Your task to perform on an android device: Do I have any events tomorrow? Image 0: 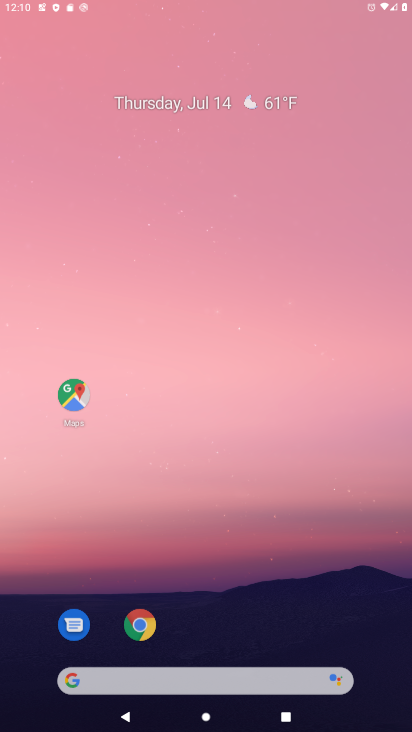
Step 0: click (141, 632)
Your task to perform on an android device: Do I have any events tomorrow? Image 1: 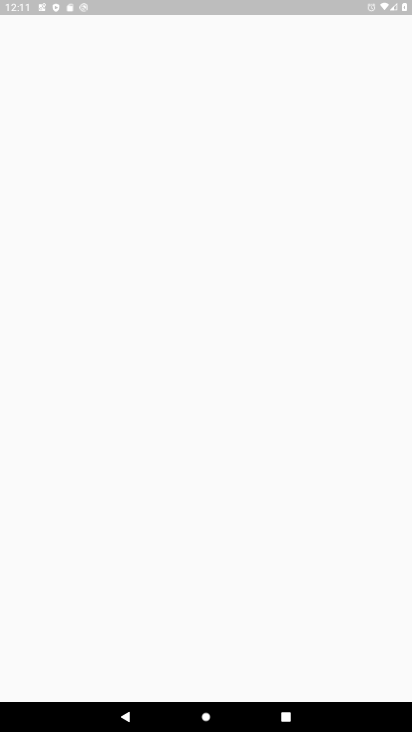
Step 1: press home button
Your task to perform on an android device: Do I have any events tomorrow? Image 2: 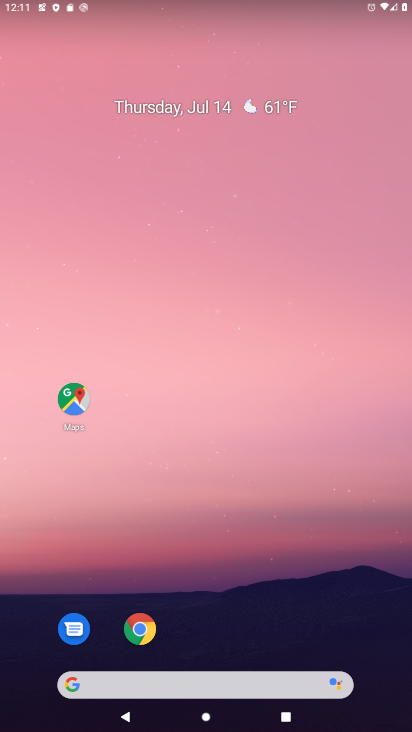
Step 2: drag from (245, 566) to (140, 78)
Your task to perform on an android device: Do I have any events tomorrow? Image 3: 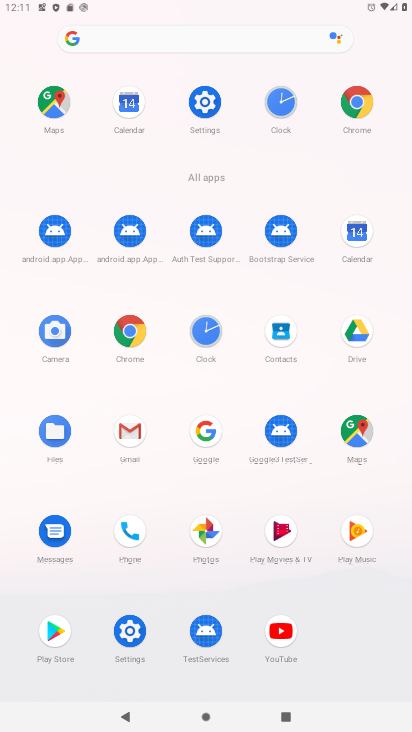
Step 3: click (360, 236)
Your task to perform on an android device: Do I have any events tomorrow? Image 4: 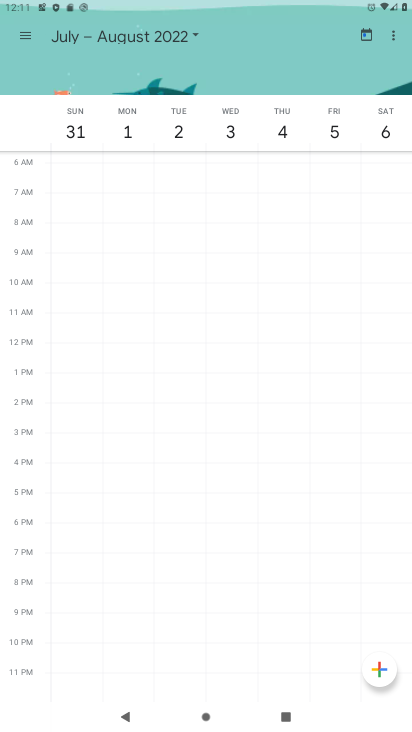
Step 4: click (25, 31)
Your task to perform on an android device: Do I have any events tomorrow? Image 5: 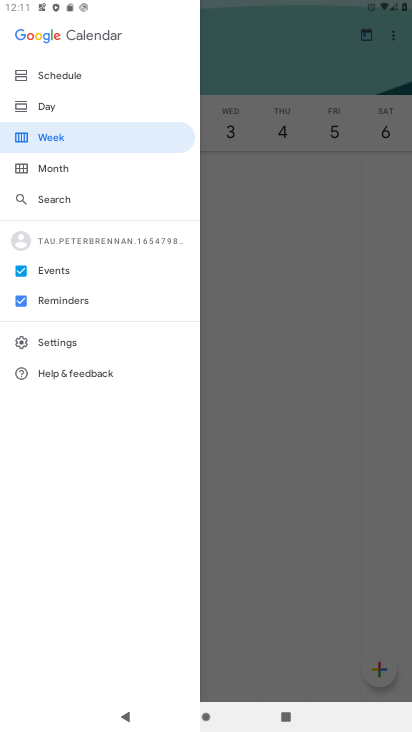
Step 5: click (45, 96)
Your task to perform on an android device: Do I have any events tomorrow? Image 6: 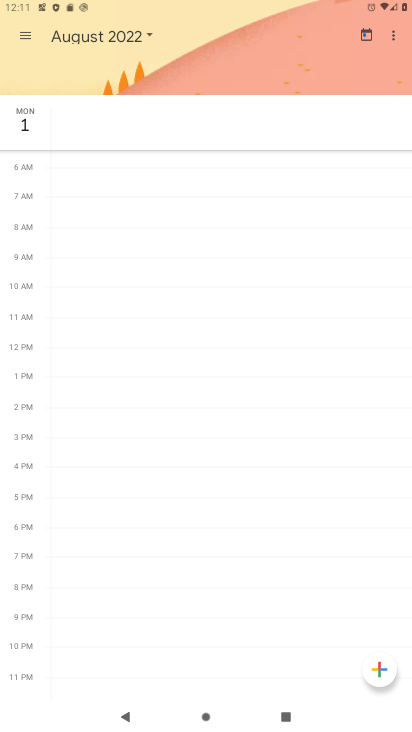
Step 6: click (147, 32)
Your task to perform on an android device: Do I have any events tomorrow? Image 7: 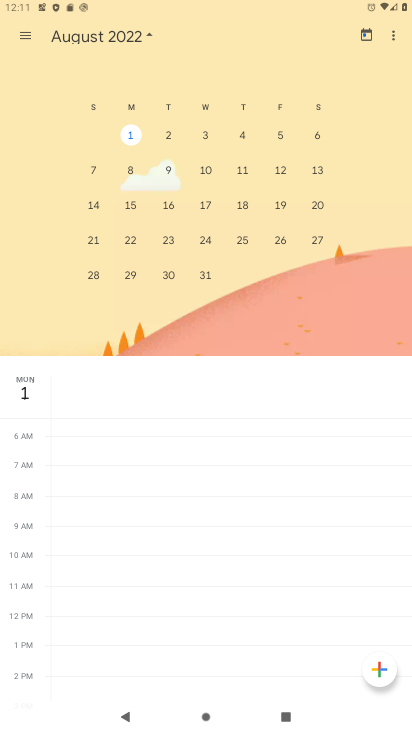
Step 7: drag from (72, 157) to (405, 235)
Your task to perform on an android device: Do I have any events tomorrow? Image 8: 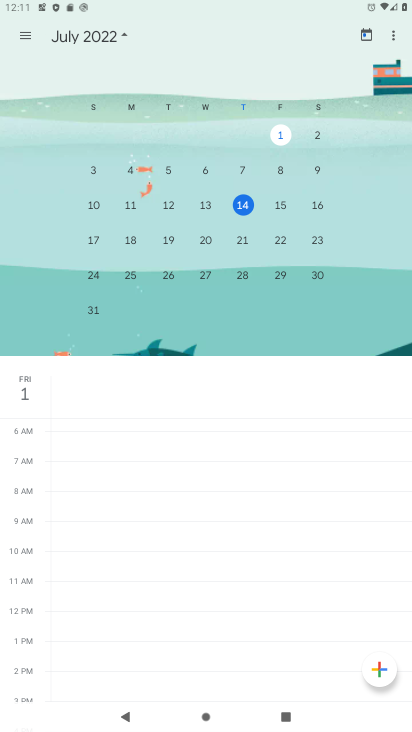
Step 8: click (278, 205)
Your task to perform on an android device: Do I have any events tomorrow? Image 9: 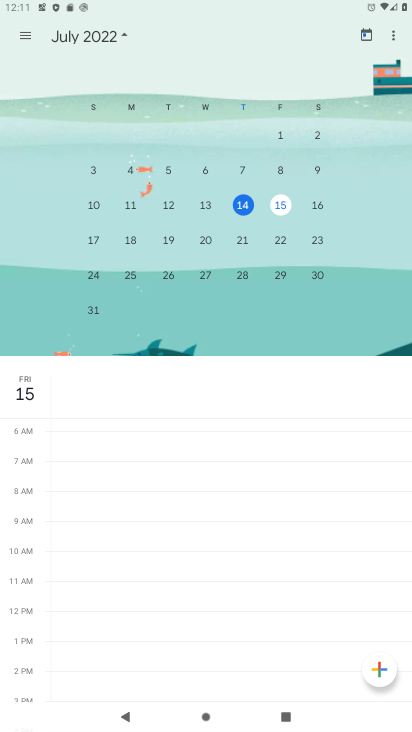
Step 9: task complete